Your task to perform on an android device: Open Yahoo.com Image 0: 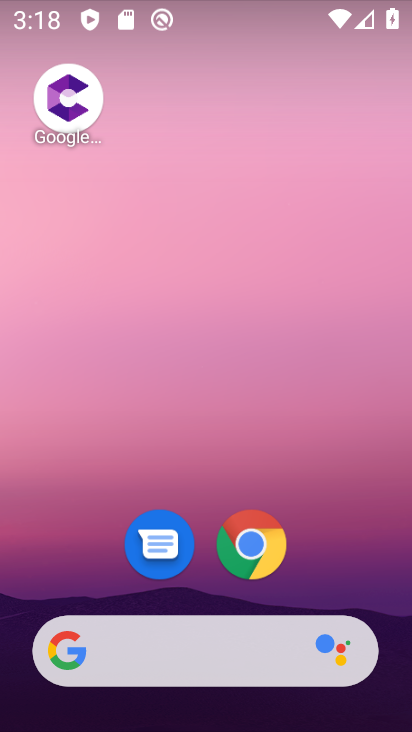
Step 0: drag from (292, 697) to (162, 4)
Your task to perform on an android device: Open Yahoo.com Image 1: 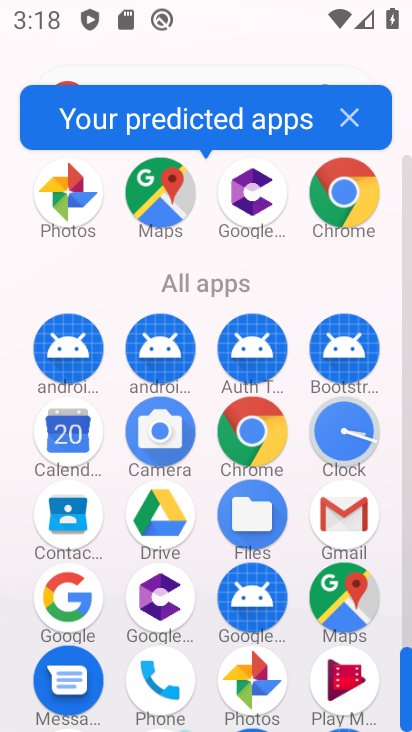
Step 1: click (285, 286)
Your task to perform on an android device: Open Yahoo.com Image 2: 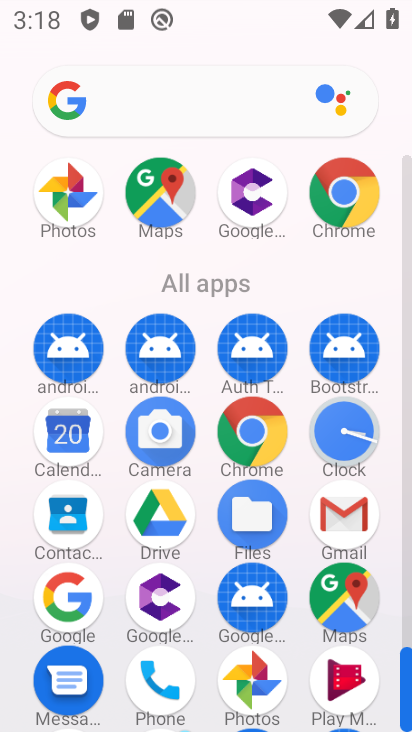
Step 2: click (340, 211)
Your task to perform on an android device: Open Yahoo.com Image 3: 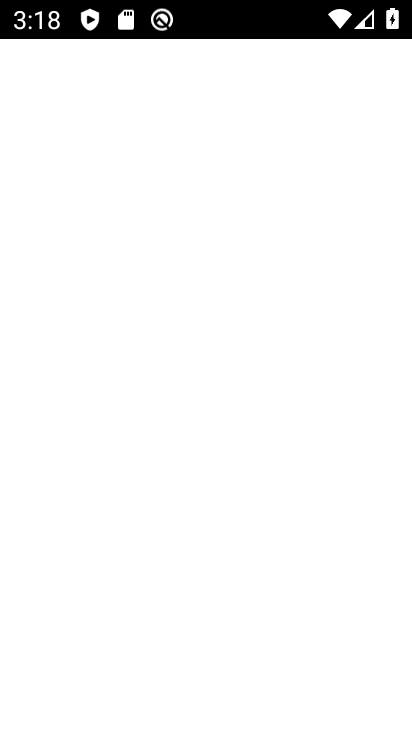
Step 3: click (337, 197)
Your task to perform on an android device: Open Yahoo.com Image 4: 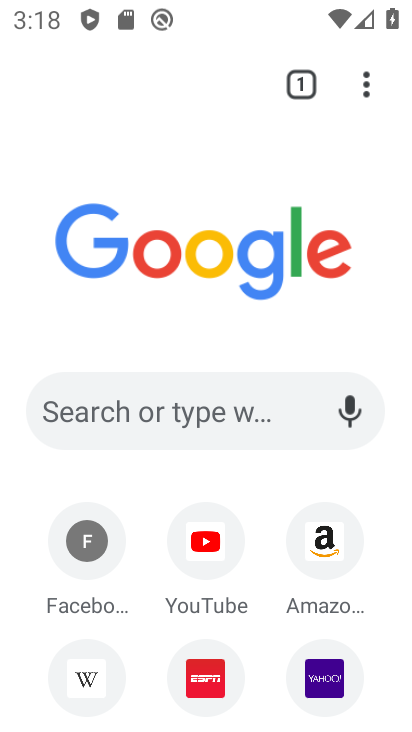
Step 4: click (328, 686)
Your task to perform on an android device: Open Yahoo.com Image 5: 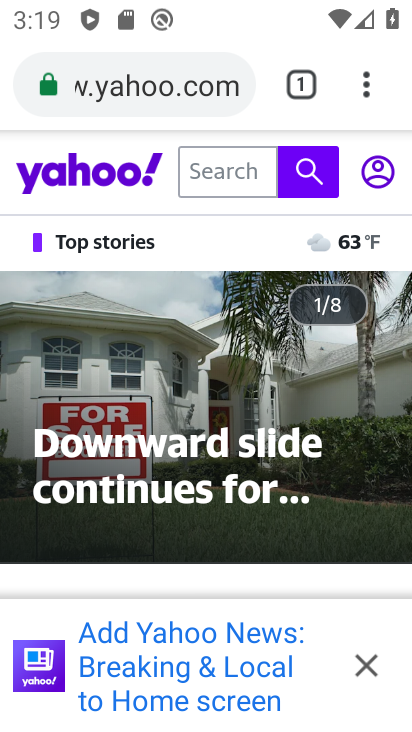
Step 5: task complete